Your task to perform on an android device: Open Maps and search for coffee Image 0: 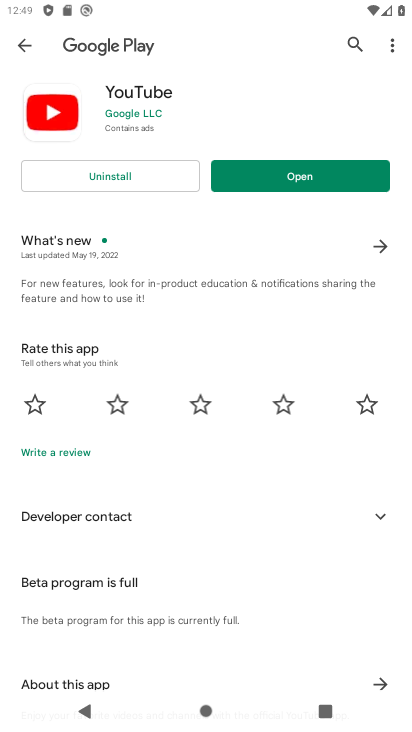
Step 0: press back button
Your task to perform on an android device: Open Maps and search for coffee Image 1: 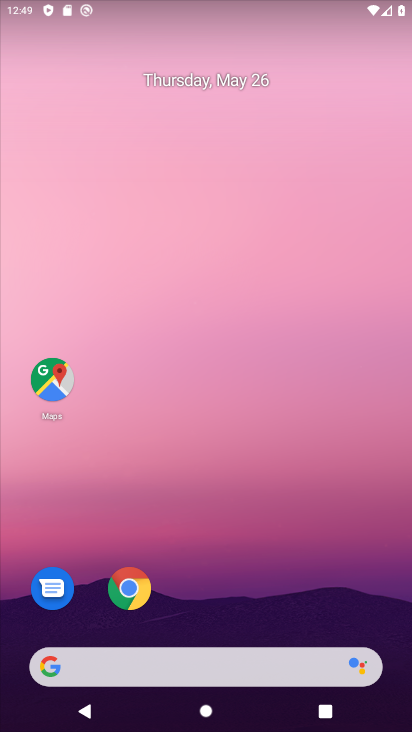
Step 1: click (39, 376)
Your task to perform on an android device: Open Maps and search for coffee Image 2: 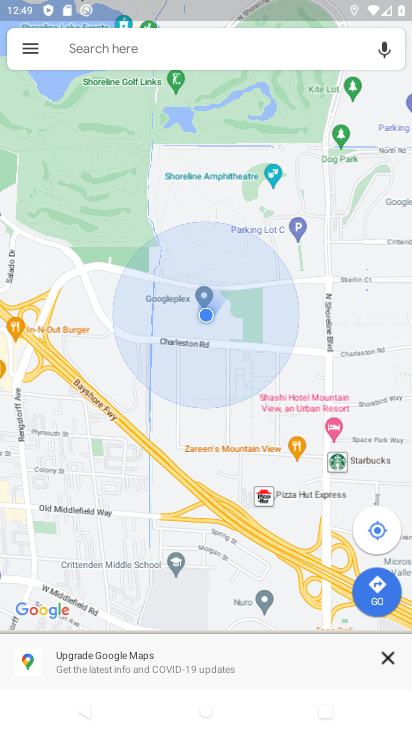
Step 2: click (85, 38)
Your task to perform on an android device: Open Maps and search for coffee Image 3: 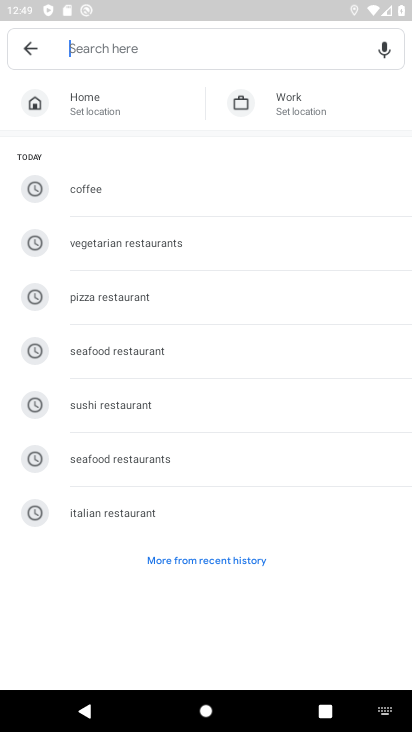
Step 3: type " coffee"
Your task to perform on an android device: Open Maps and search for coffee Image 4: 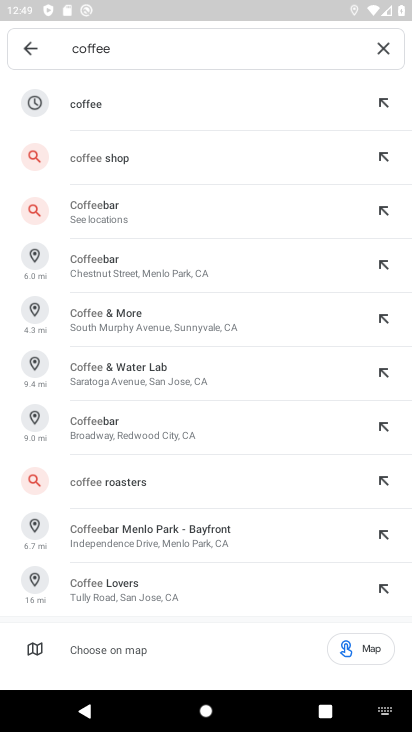
Step 4: click (80, 155)
Your task to perform on an android device: Open Maps and search for coffee Image 5: 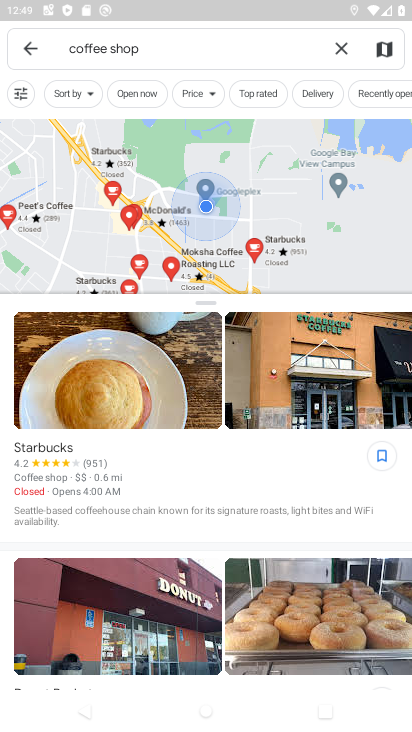
Step 5: task complete